Your task to perform on an android device: open app "Lyft - Rideshare, Bikes, Scooters & Transit" (install if not already installed) Image 0: 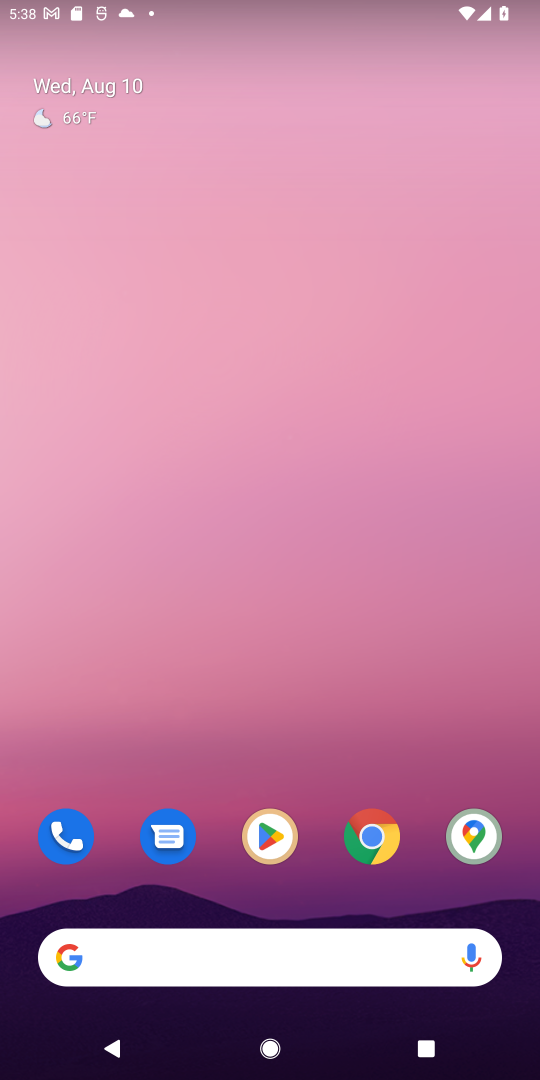
Step 0: drag from (216, 818) to (168, 303)
Your task to perform on an android device: open app "Lyft - Rideshare, Bikes, Scooters & Transit" (install if not already installed) Image 1: 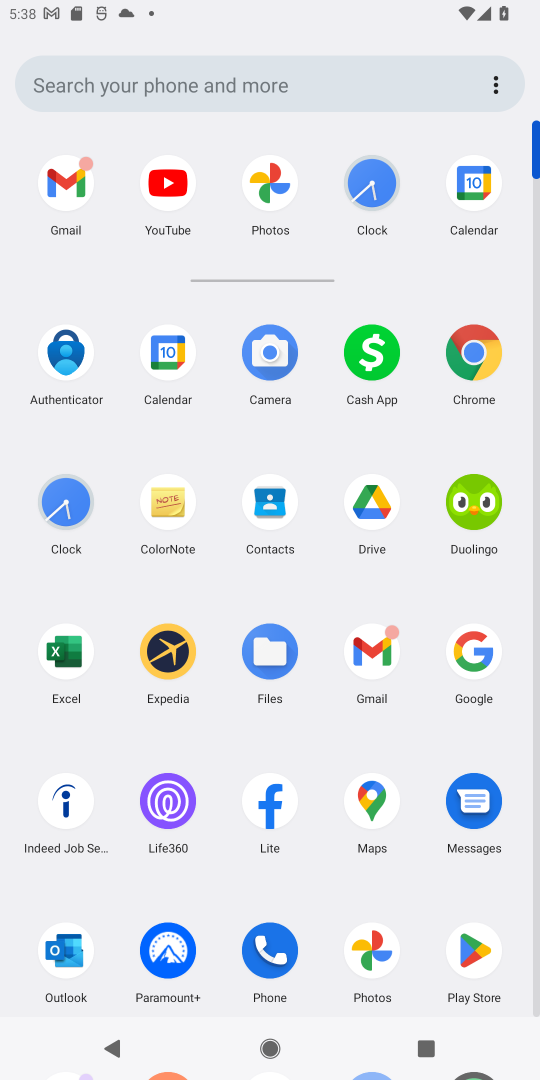
Step 1: click (477, 939)
Your task to perform on an android device: open app "Lyft - Rideshare, Bikes, Scooters & Transit" (install if not already installed) Image 2: 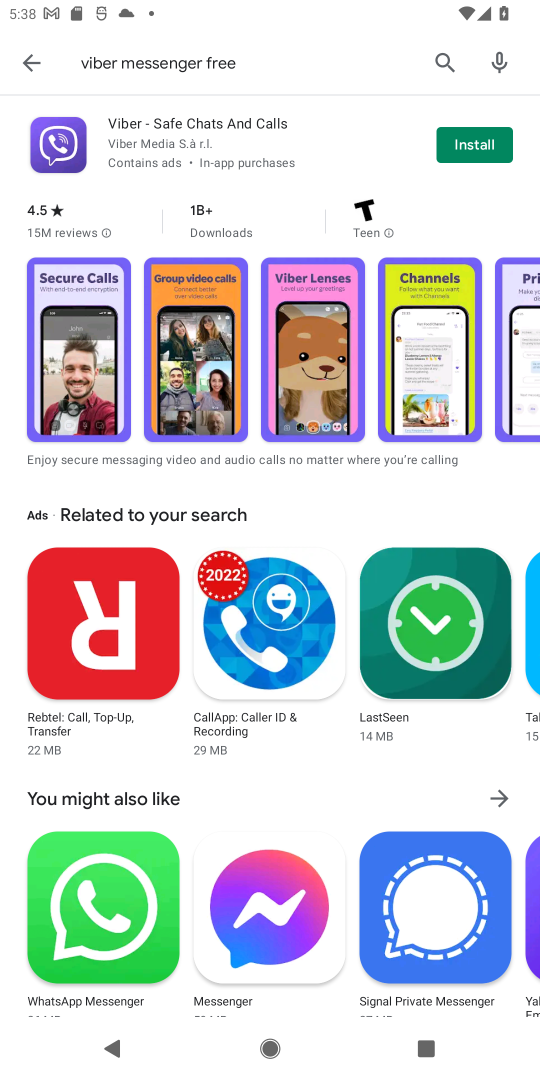
Step 2: click (46, 49)
Your task to perform on an android device: open app "Lyft - Rideshare, Bikes, Scooters & Transit" (install if not already installed) Image 3: 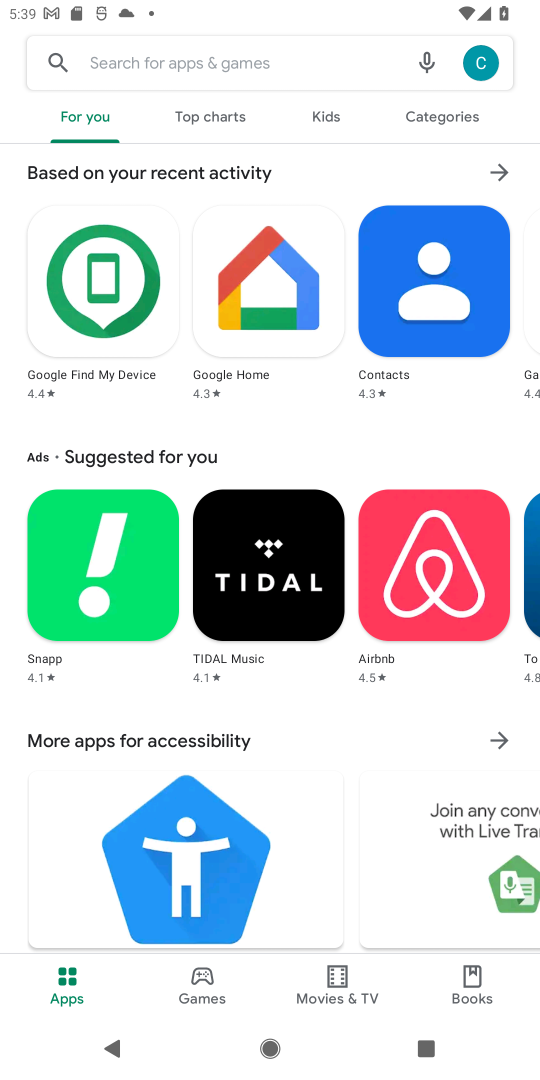
Step 3: click (217, 58)
Your task to perform on an android device: open app "Lyft - Rideshare, Bikes, Scooters & Transit" (install if not already installed) Image 4: 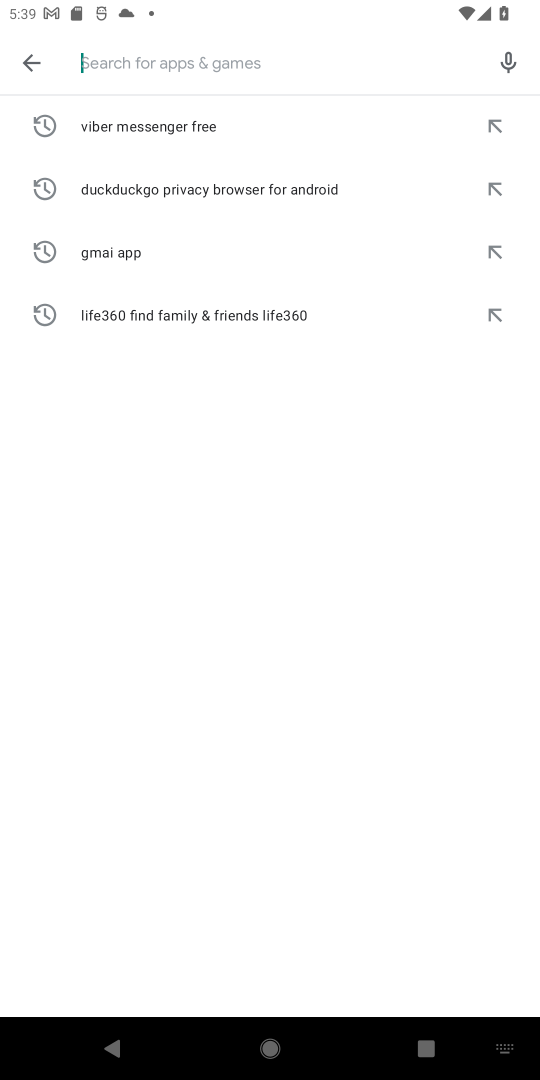
Step 4: type "Lyft "
Your task to perform on an android device: open app "Lyft - Rideshare, Bikes, Scooters & Transit" (install if not already installed) Image 5: 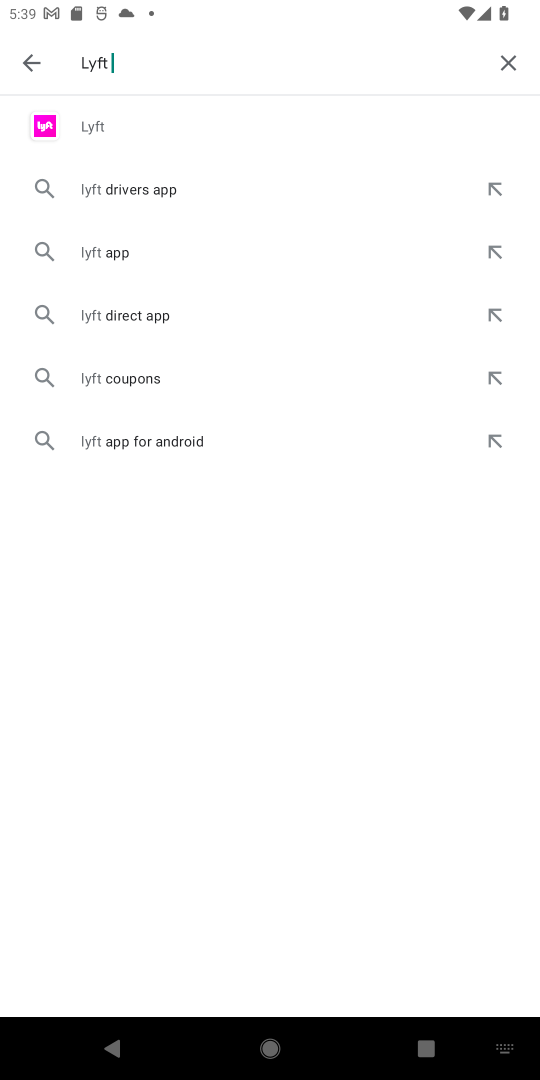
Step 5: click (65, 117)
Your task to perform on an android device: open app "Lyft - Rideshare, Bikes, Scooters & Transit" (install if not already installed) Image 6: 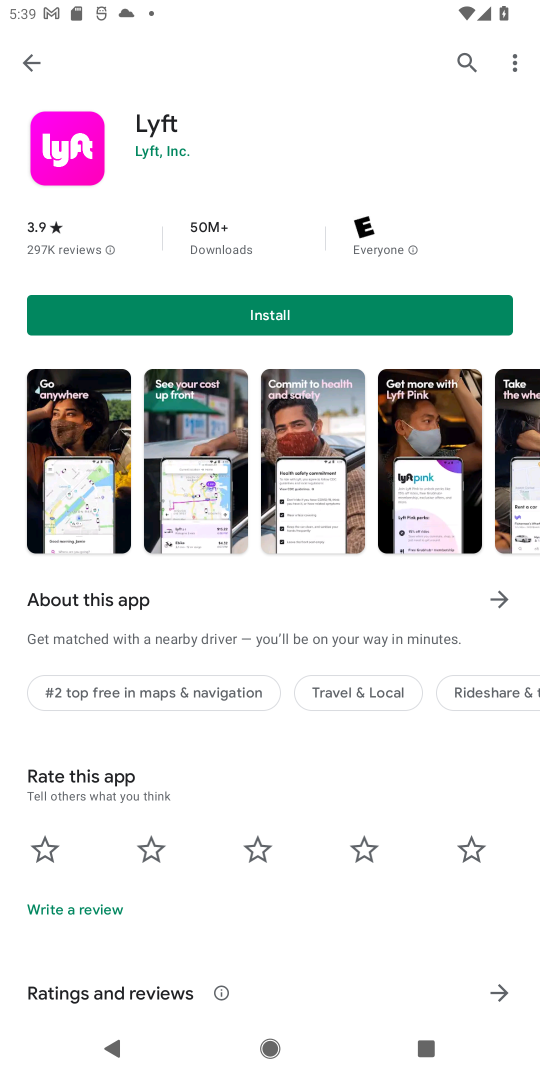
Step 6: click (227, 310)
Your task to perform on an android device: open app "Lyft - Rideshare, Bikes, Scooters & Transit" (install if not already installed) Image 7: 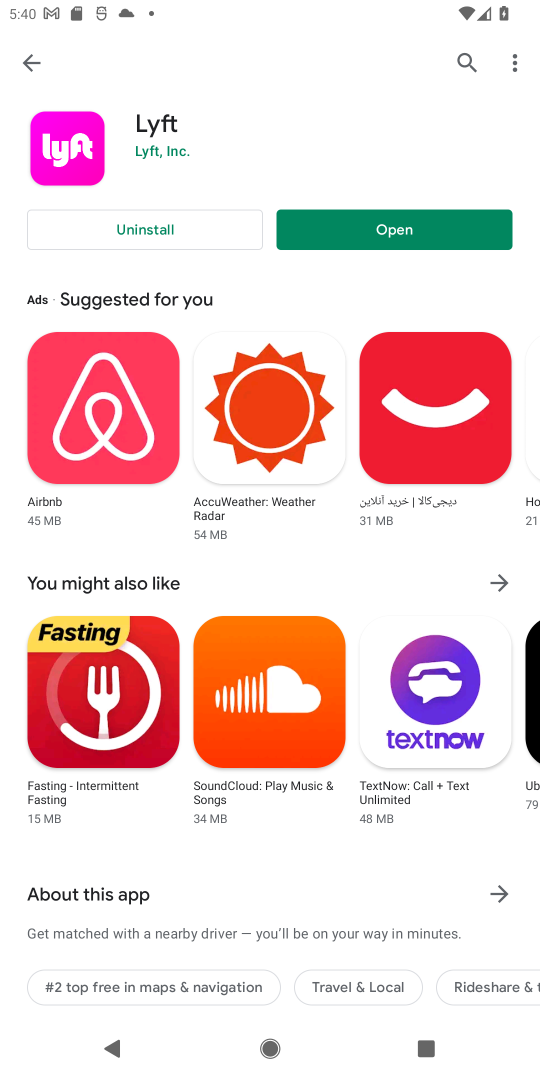
Step 7: click (415, 210)
Your task to perform on an android device: open app "Lyft - Rideshare, Bikes, Scooters & Transit" (install if not already installed) Image 8: 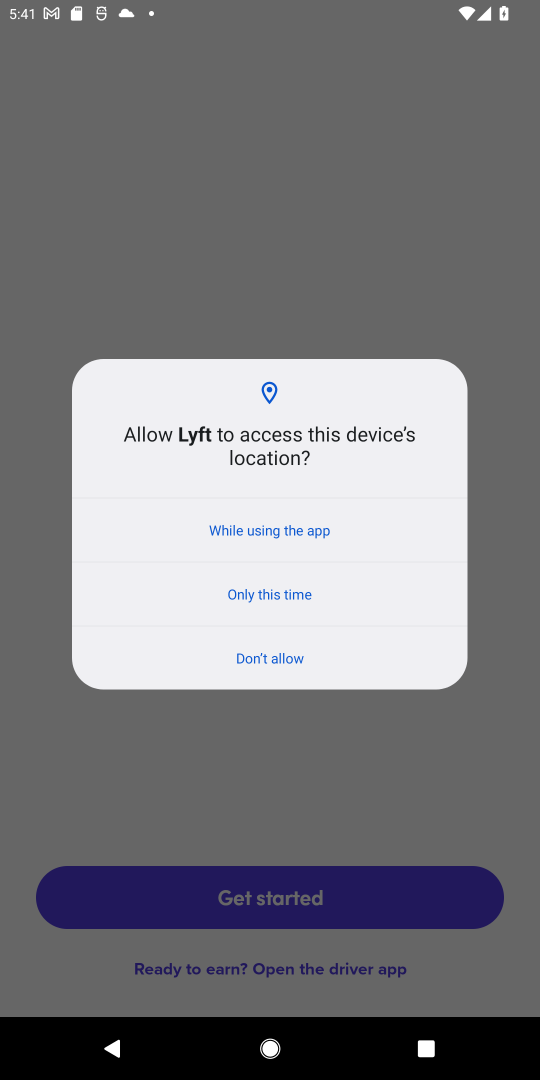
Step 8: click (290, 531)
Your task to perform on an android device: open app "Lyft - Rideshare, Bikes, Scooters & Transit" (install if not already installed) Image 9: 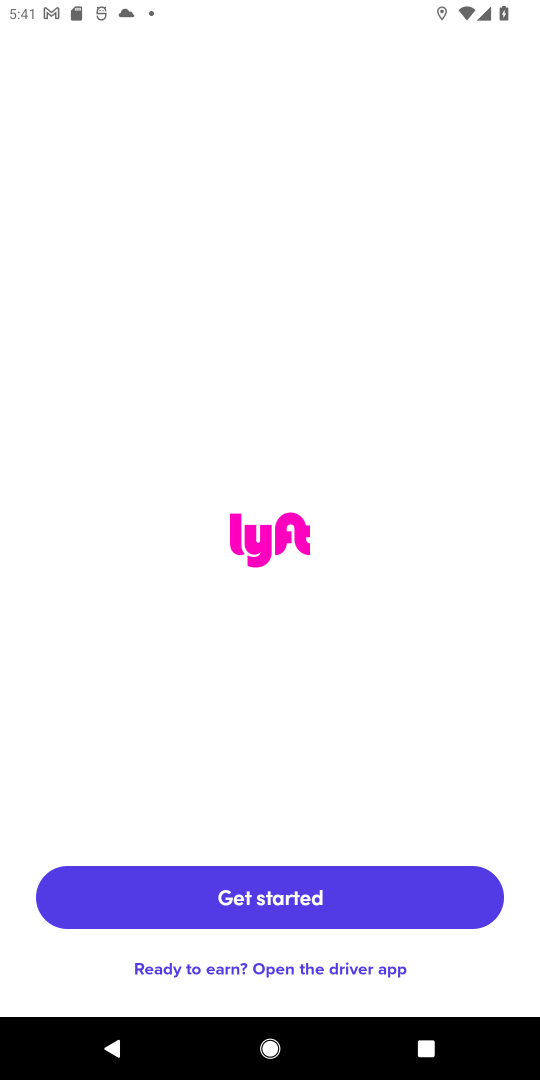
Step 9: task complete